Your task to perform on an android device: set the stopwatch Image 0: 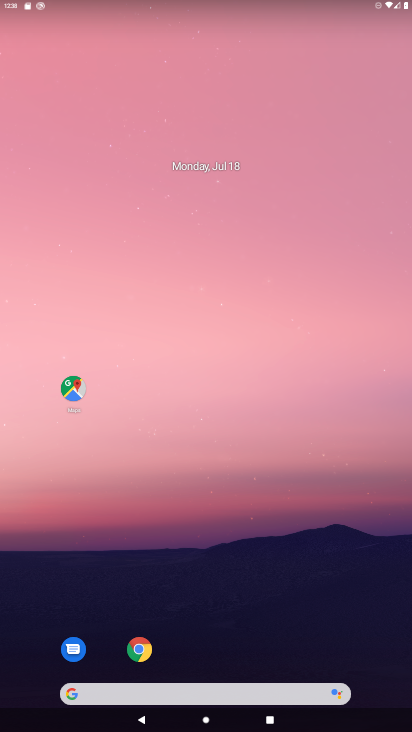
Step 0: drag from (200, 654) to (162, 372)
Your task to perform on an android device: set the stopwatch Image 1: 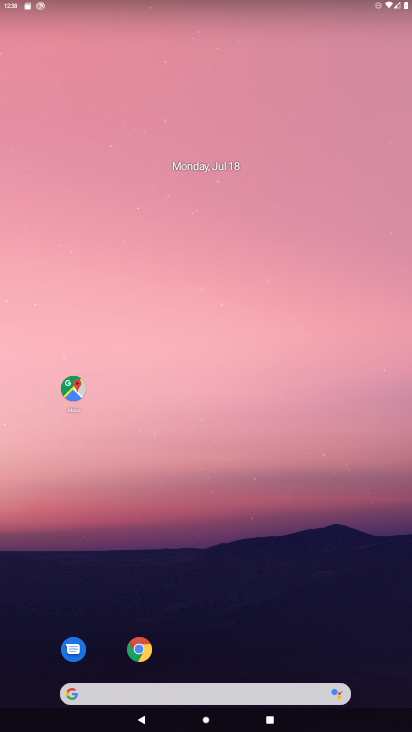
Step 1: click (240, 72)
Your task to perform on an android device: set the stopwatch Image 2: 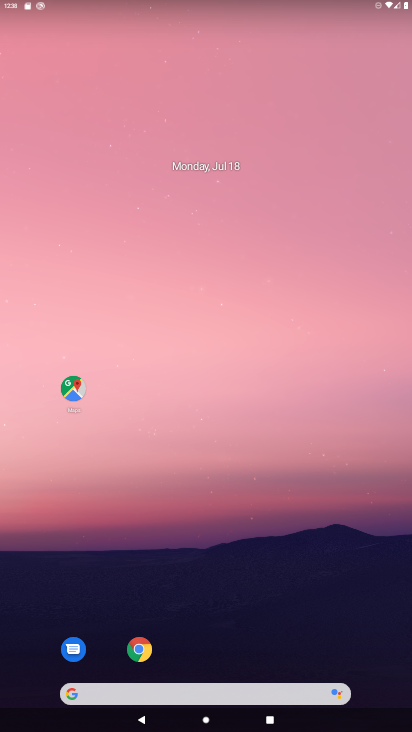
Step 2: click (287, 424)
Your task to perform on an android device: set the stopwatch Image 3: 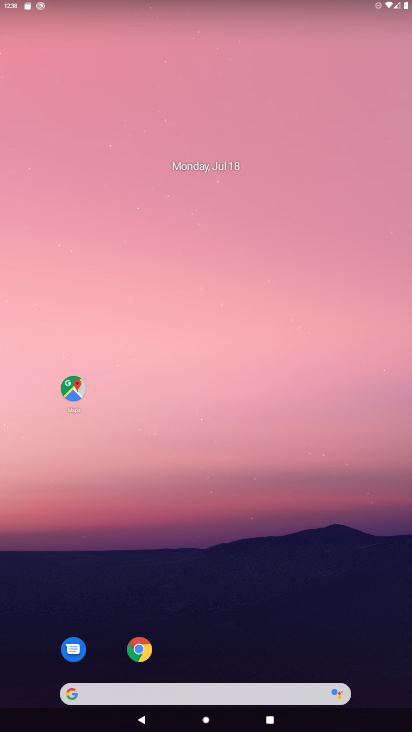
Step 3: click (191, 449)
Your task to perform on an android device: set the stopwatch Image 4: 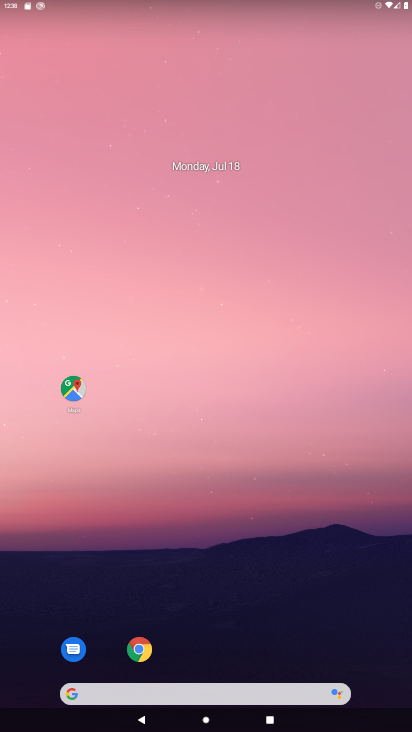
Step 4: drag from (188, 619) to (182, 224)
Your task to perform on an android device: set the stopwatch Image 5: 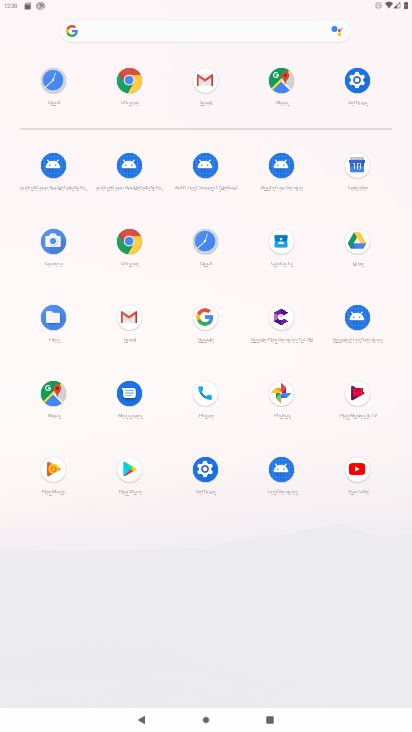
Step 5: click (40, 86)
Your task to perform on an android device: set the stopwatch Image 6: 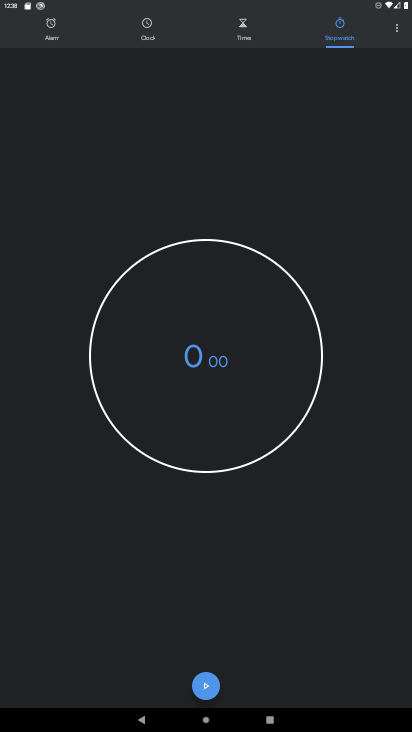
Step 6: task complete